Your task to perform on an android device: Go to settings Image 0: 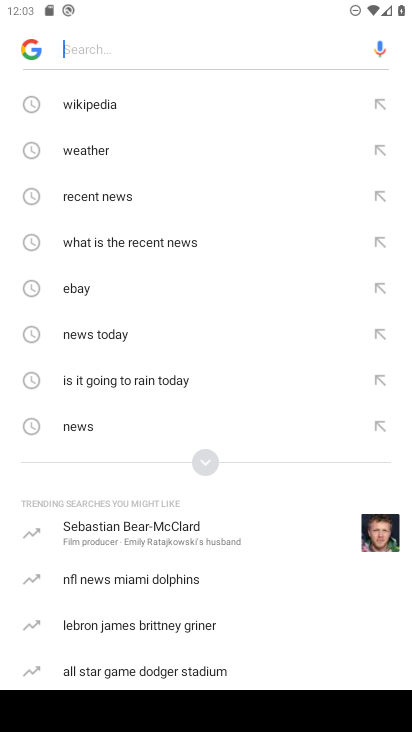
Step 0: press back button
Your task to perform on an android device: Go to settings Image 1: 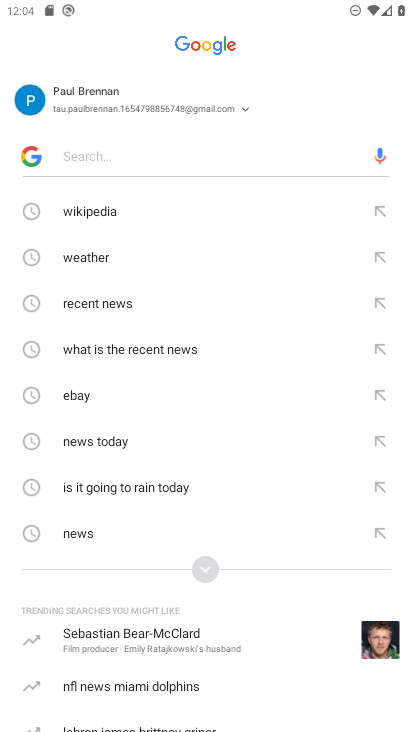
Step 1: press home button
Your task to perform on an android device: Go to settings Image 2: 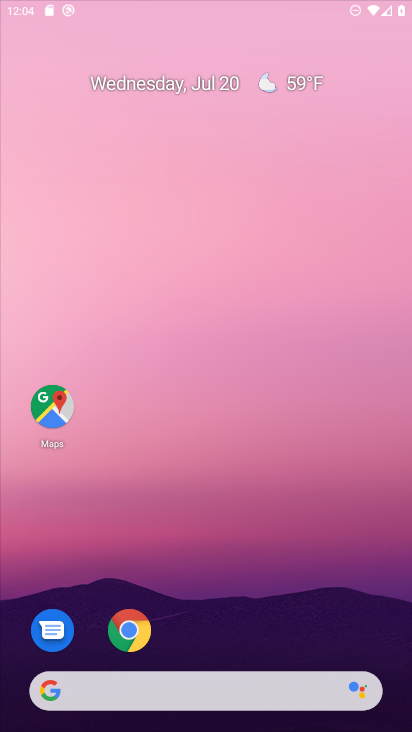
Step 2: drag from (259, 701) to (216, 11)
Your task to perform on an android device: Go to settings Image 3: 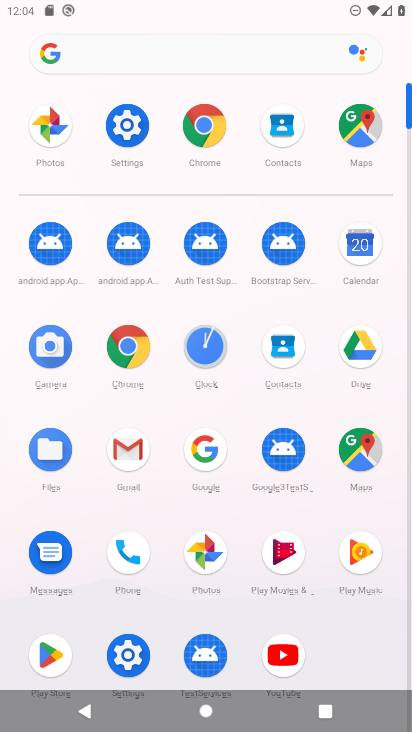
Step 3: click (116, 131)
Your task to perform on an android device: Go to settings Image 4: 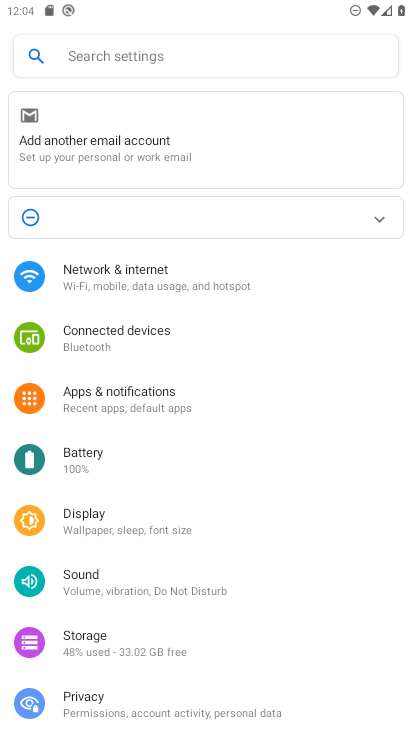
Step 4: task complete